Your task to perform on an android device: allow cookies in the chrome app Image 0: 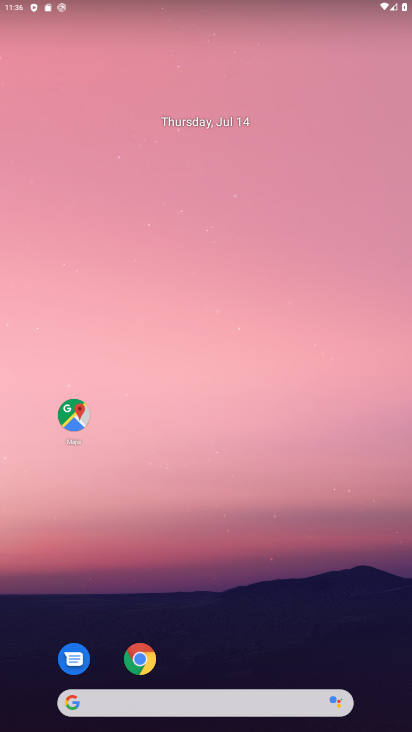
Step 0: click (145, 657)
Your task to perform on an android device: allow cookies in the chrome app Image 1: 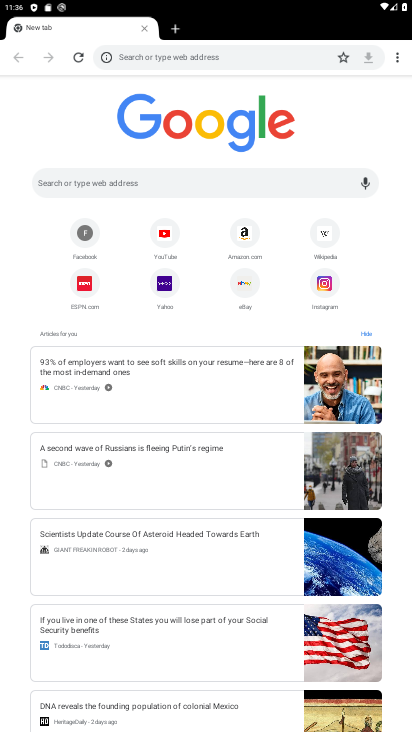
Step 1: click (399, 54)
Your task to perform on an android device: allow cookies in the chrome app Image 2: 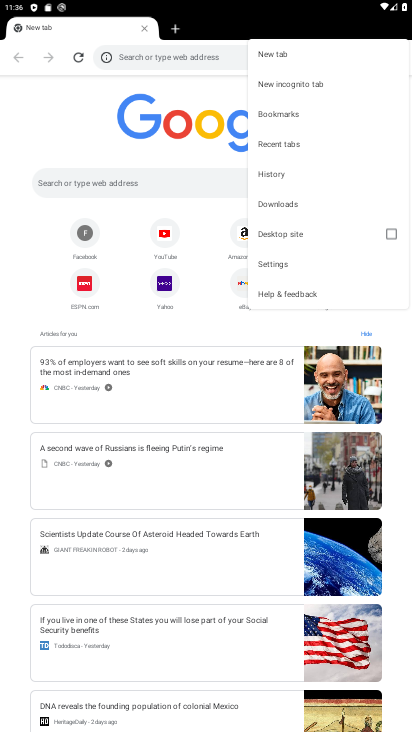
Step 2: click (288, 261)
Your task to perform on an android device: allow cookies in the chrome app Image 3: 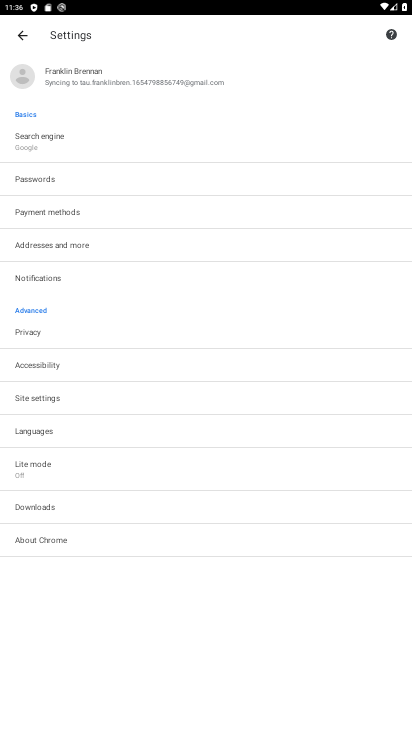
Step 3: click (53, 401)
Your task to perform on an android device: allow cookies in the chrome app Image 4: 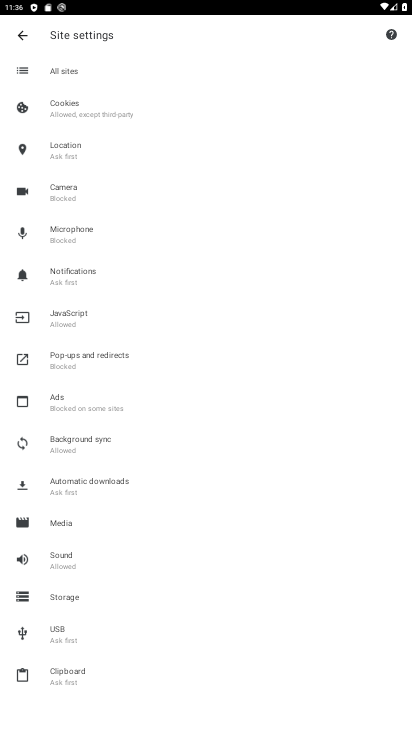
Step 4: click (66, 110)
Your task to perform on an android device: allow cookies in the chrome app Image 5: 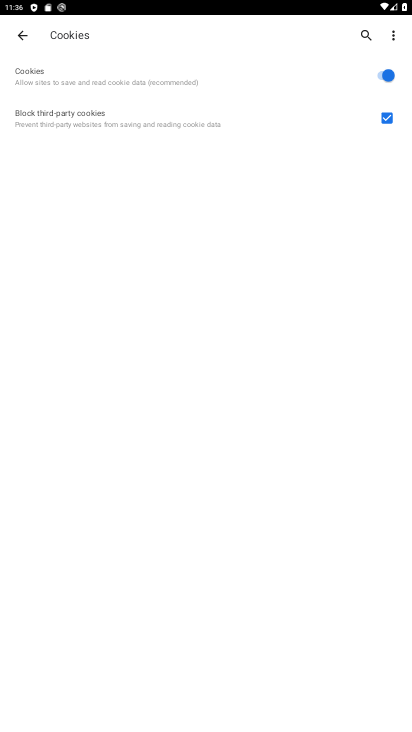
Step 5: task complete